Your task to perform on an android device: Open Youtube and go to the subscriptions tab Image 0: 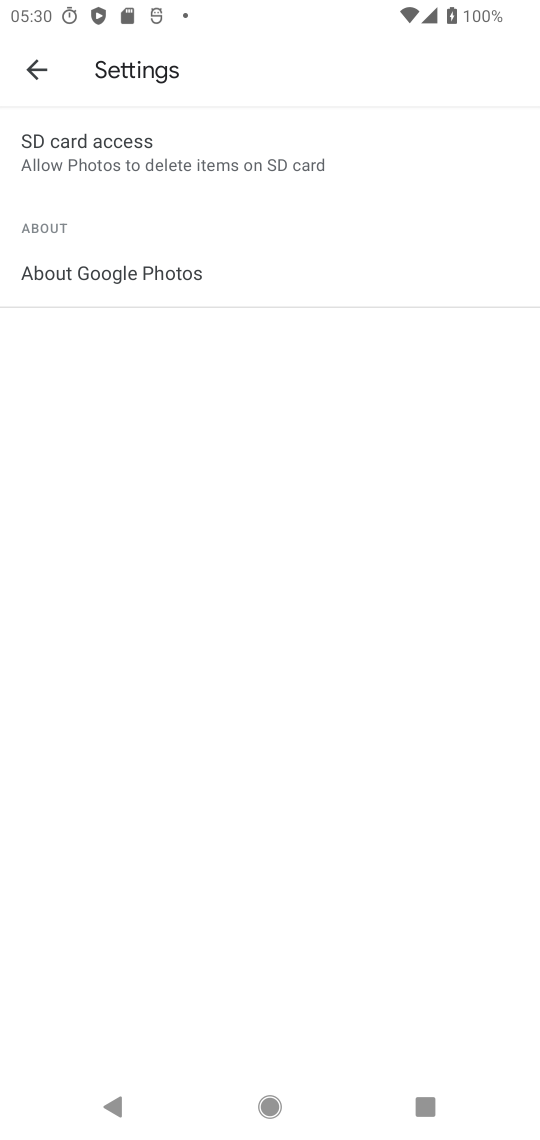
Step 0: press home button
Your task to perform on an android device: Open Youtube and go to the subscriptions tab Image 1: 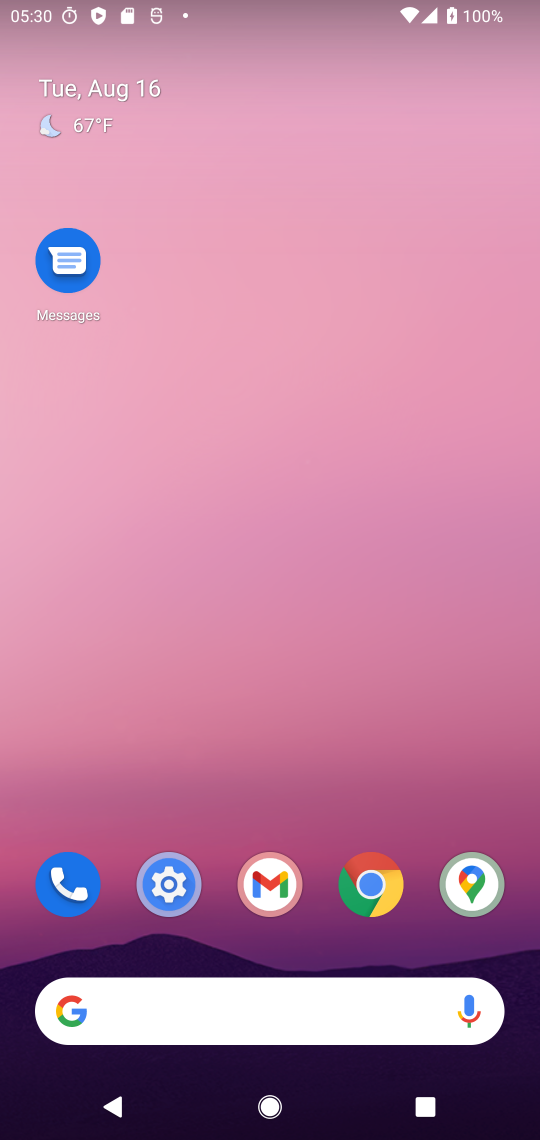
Step 1: drag from (21, 1060) to (338, 298)
Your task to perform on an android device: Open Youtube and go to the subscriptions tab Image 2: 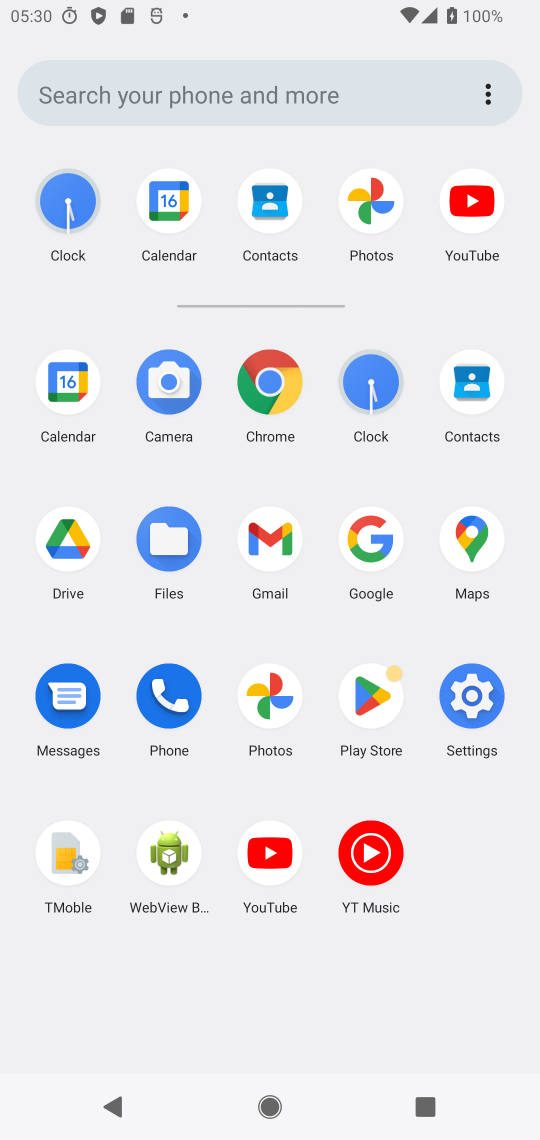
Step 2: click (269, 859)
Your task to perform on an android device: Open Youtube and go to the subscriptions tab Image 3: 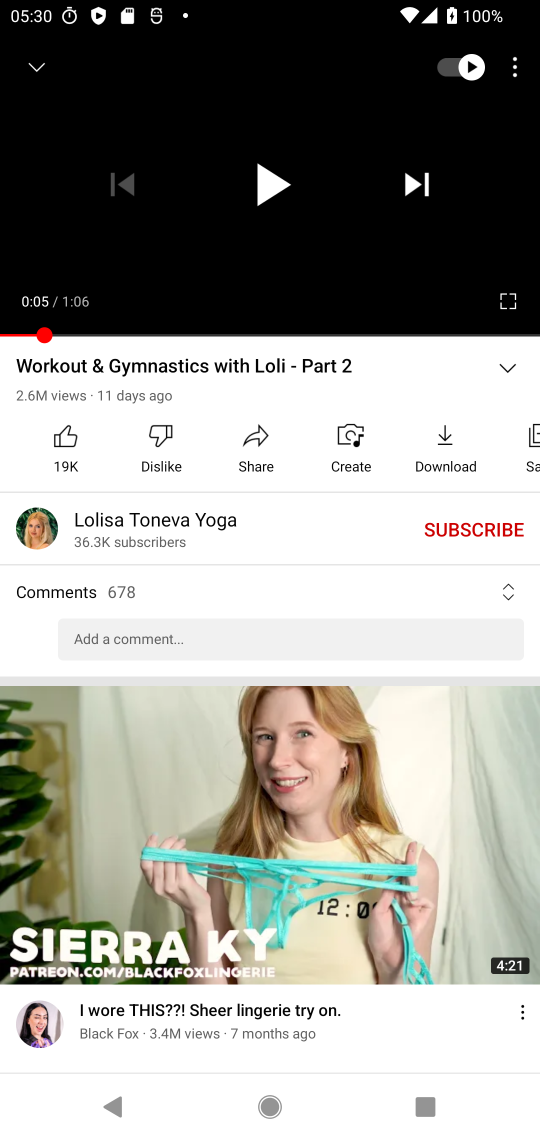
Step 3: press back button
Your task to perform on an android device: Open Youtube and go to the subscriptions tab Image 4: 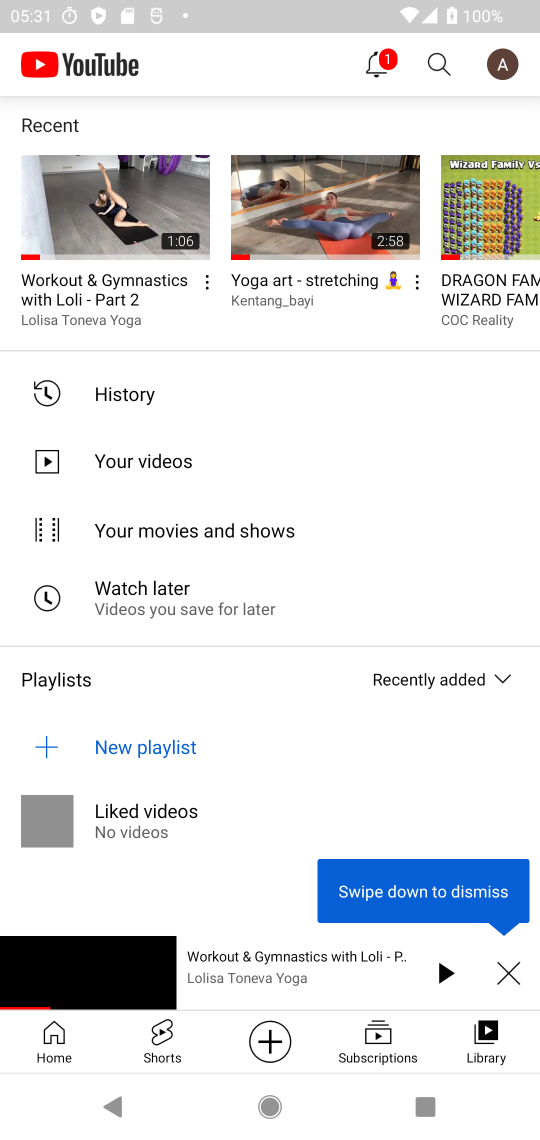
Step 4: click (375, 1031)
Your task to perform on an android device: Open Youtube and go to the subscriptions tab Image 5: 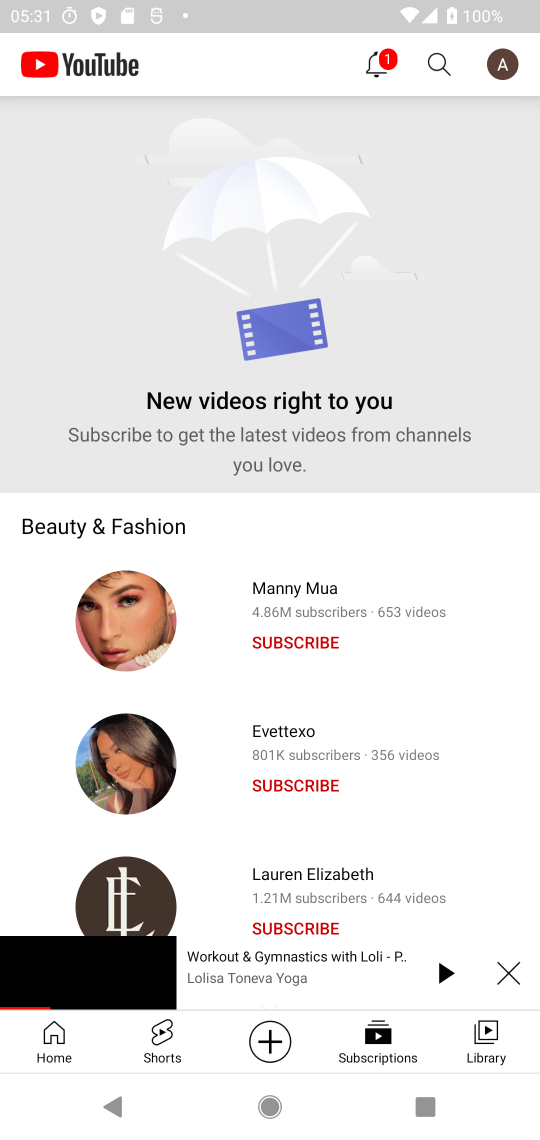
Step 5: task complete